Your task to perform on an android device: turn pop-ups on in chrome Image 0: 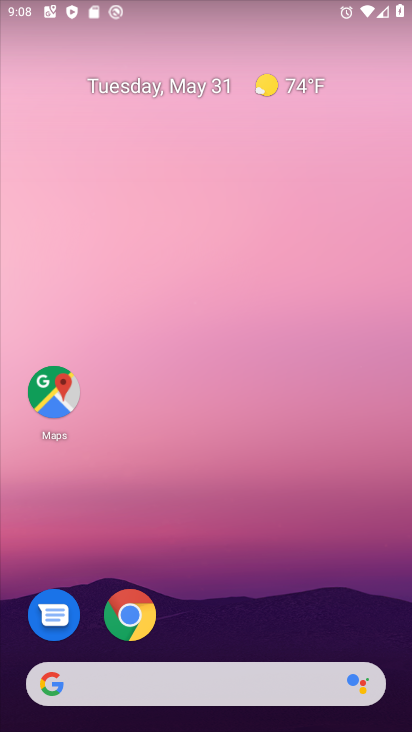
Step 0: click (135, 626)
Your task to perform on an android device: turn pop-ups on in chrome Image 1: 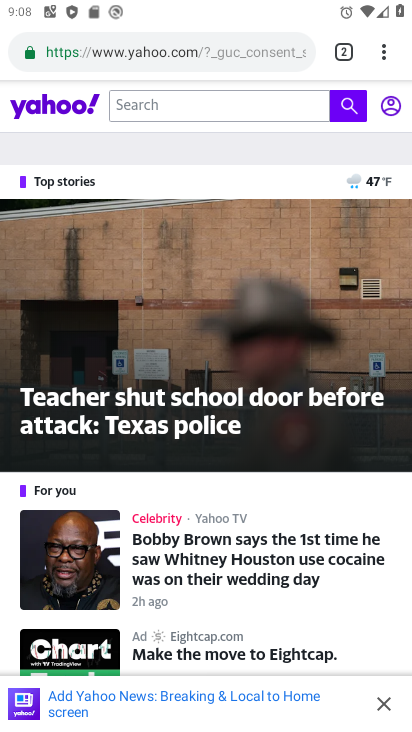
Step 1: drag from (379, 53) to (211, 563)
Your task to perform on an android device: turn pop-ups on in chrome Image 2: 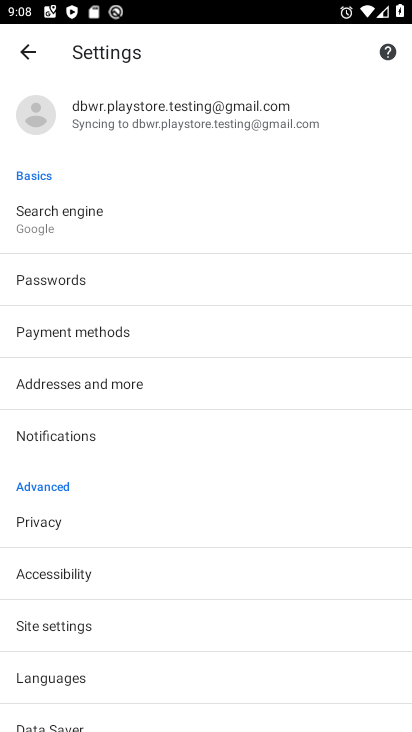
Step 2: click (128, 618)
Your task to perform on an android device: turn pop-ups on in chrome Image 3: 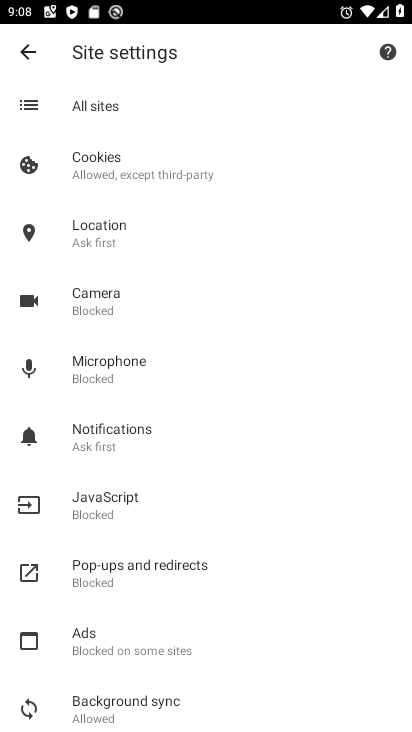
Step 3: click (187, 575)
Your task to perform on an android device: turn pop-ups on in chrome Image 4: 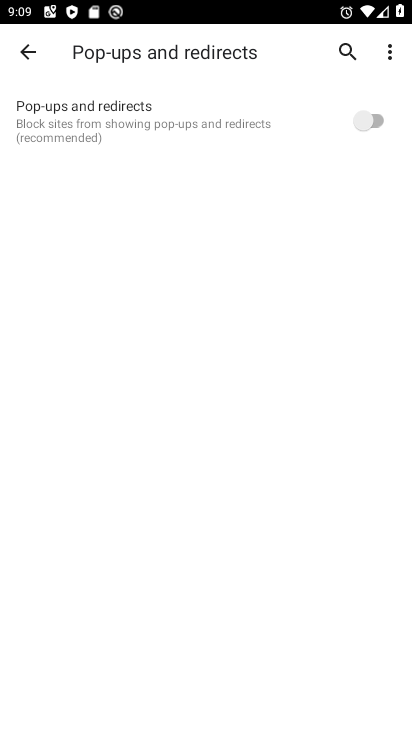
Step 4: click (374, 120)
Your task to perform on an android device: turn pop-ups on in chrome Image 5: 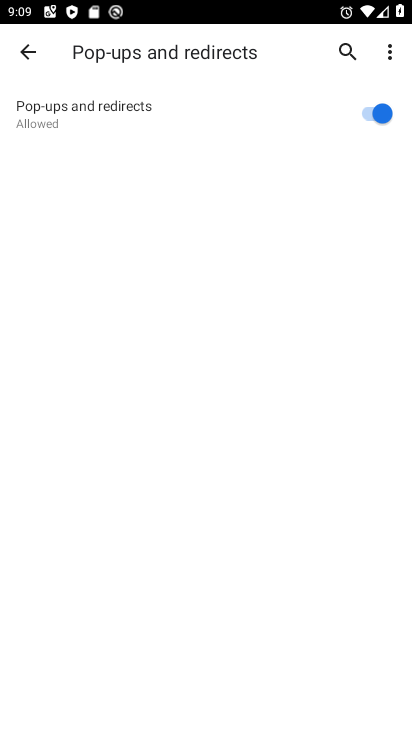
Step 5: task complete